Your task to perform on an android device: turn off data saver in the chrome app Image 0: 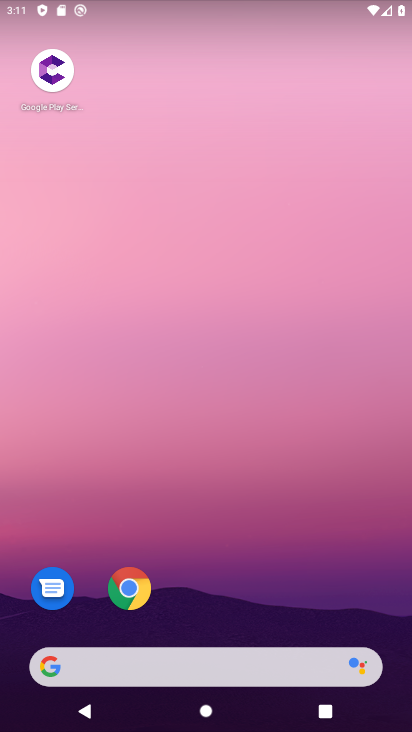
Step 0: click (136, 583)
Your task to perform on an android device: turn off data saver in the chrome app Image 1: 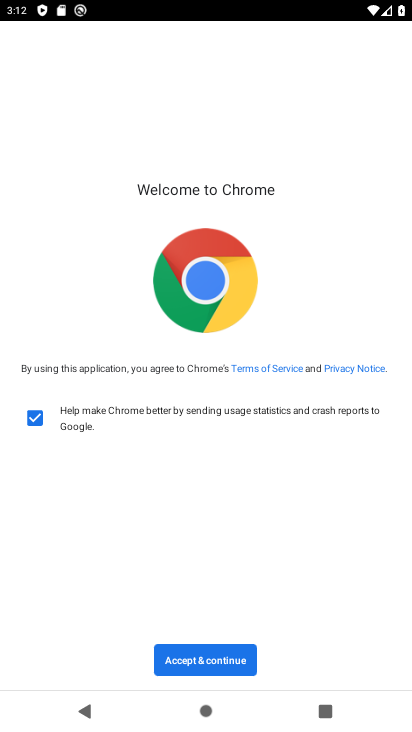
Step 1: click (235, 654)
Your task to perform on an android device: turn off data saver in the chrome app Image 2: 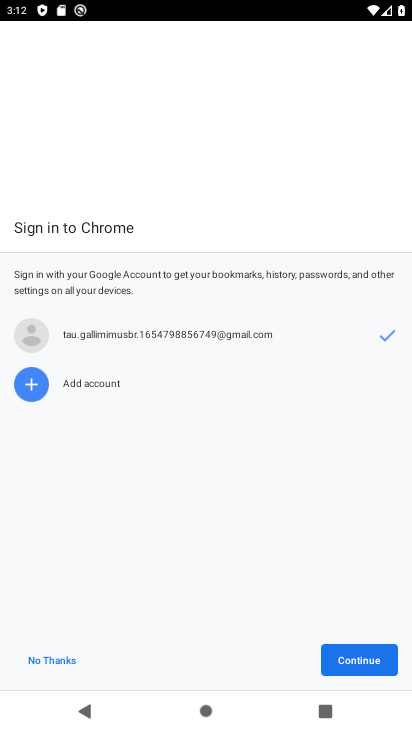
Step 2: click (366, 655)
Your task to perform on an android device: turn off data saver in the chrome app Image 3: 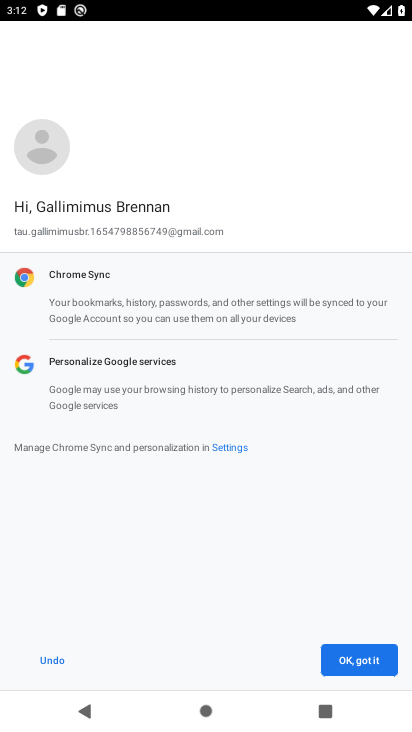
Step 3: click (352, 668)
Your task to perform on an android device: turn off data saver in the chrome app Image 4: 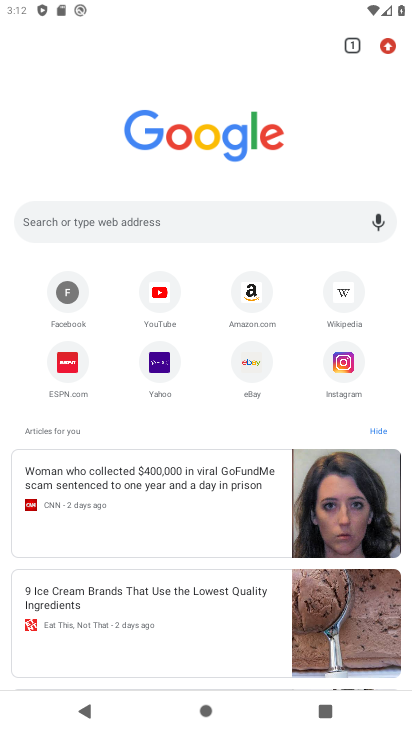
Step 4: click (394, 45)
Your task to perform on an android device: turn off data saver in the chrome app Image 5: 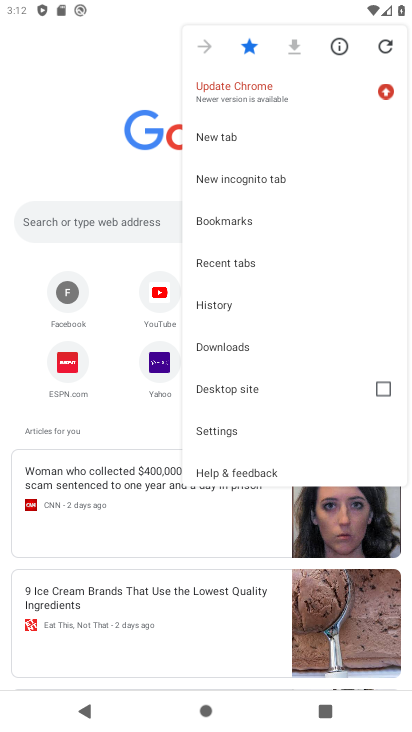
Step 5: click (252, 432)
Your task to perform on an android device: turn off data saver in the chrome app Image 6: 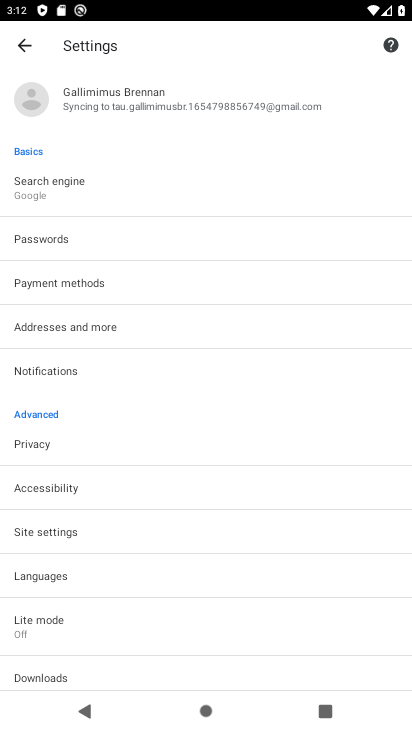
Step 6: click (130, 633)
Your task to perform on an android device: turn off data saver in the chrome app Image 7: 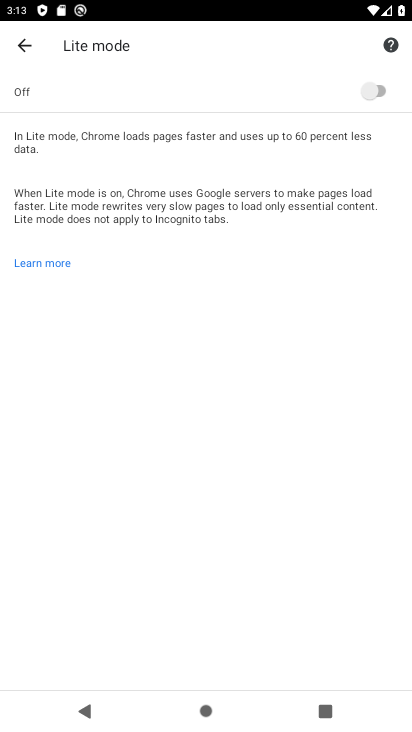
Step 7: task complete